Your task to perform on an android device: Go to eBay Image 0: 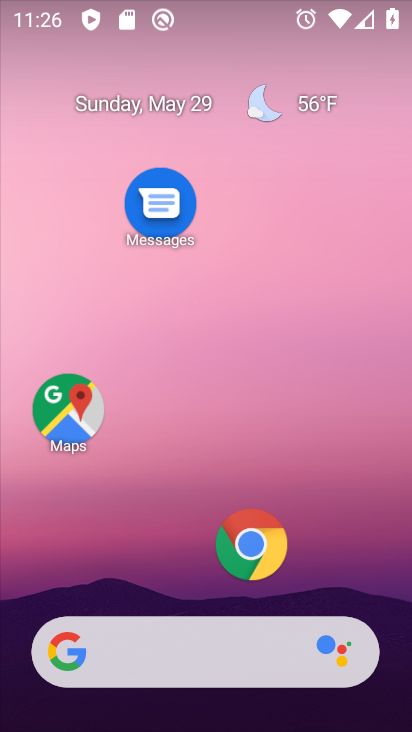
Step 0: press home button
Your task to perform on an android device: Go to eBay Image 1: 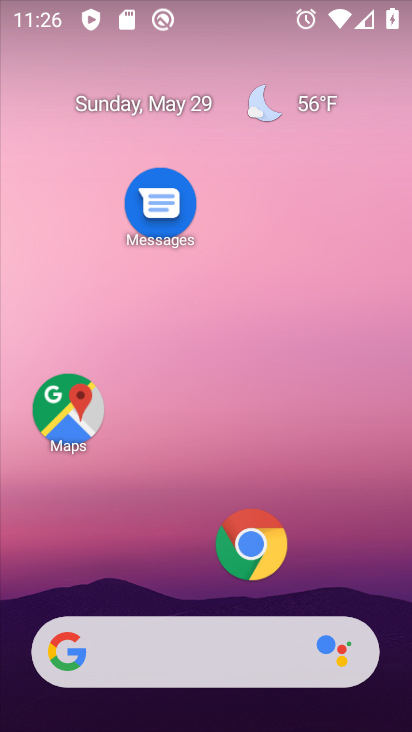
Step 1: click (251, 538)
Your task to perform on an android device: Go to eBay Image 2: 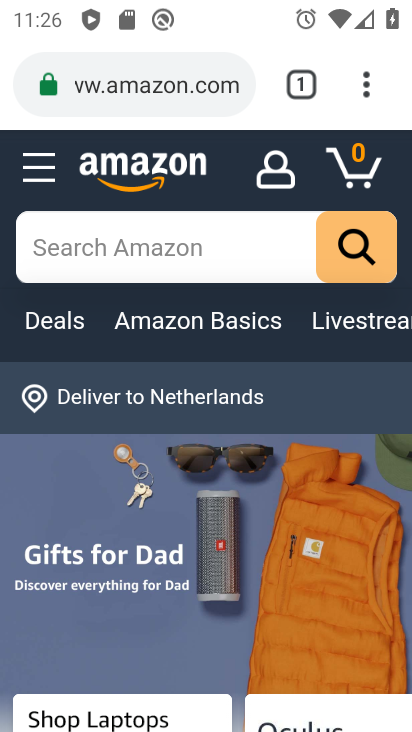
Step 2: click (297, 89)
Your task to perform on an android device: Go to eBay Image 3: 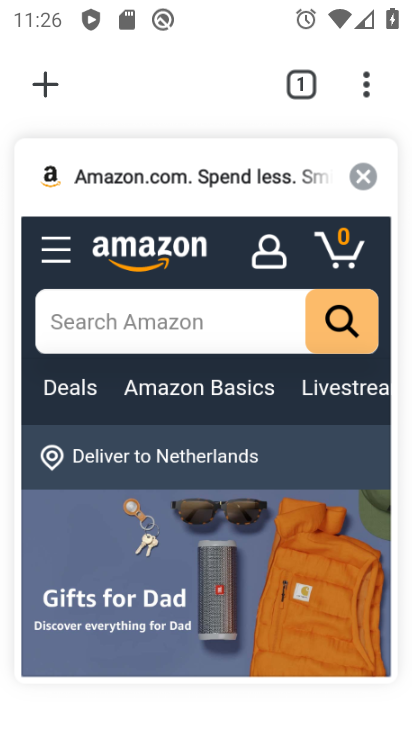
Step 3: click (365, 166)
Your task to perform on an android device: Go to eBay Image 4: 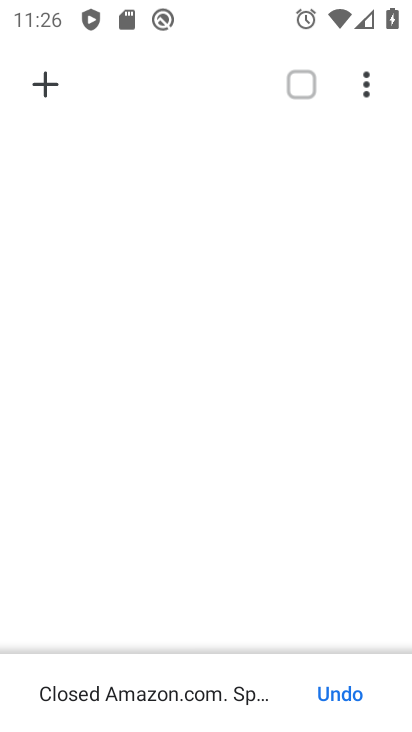
Step 4: click (43, 77)
Your task to perform on an android device: Go to eBay Image 5: 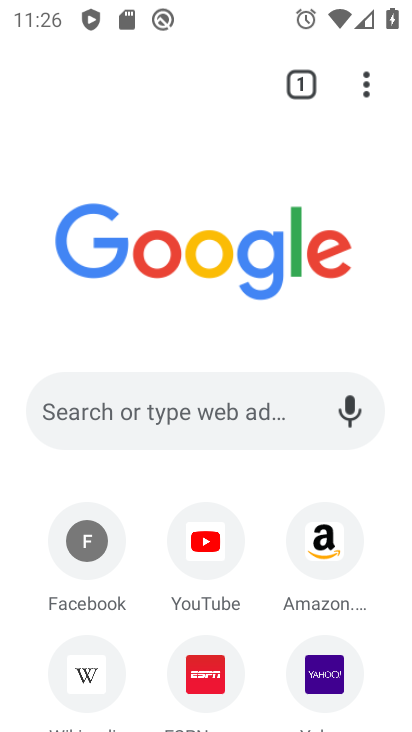
Step 5: click (164, 397)
Your task to perform on an android device: Go to eBay Image 6: 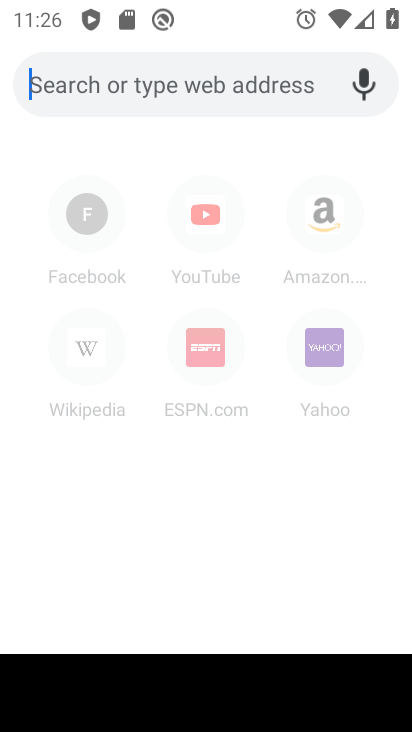
Step 6: type "ebay"
Your task to perform on an android device: Go to eBay Image 7: 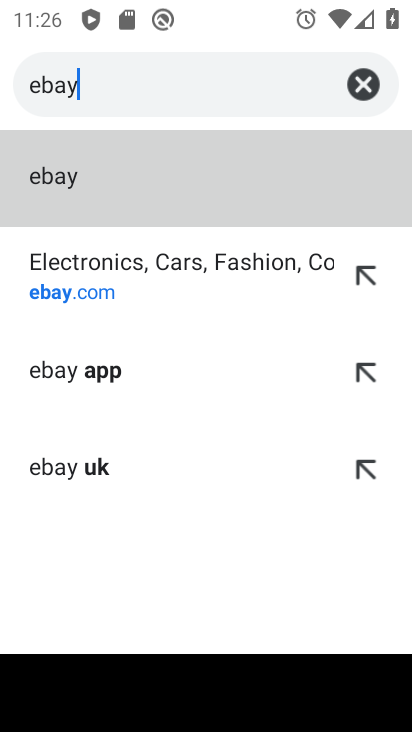
Step 7: click (141, 279)
Your task to perform on an android device: Go to eBay Image 8: 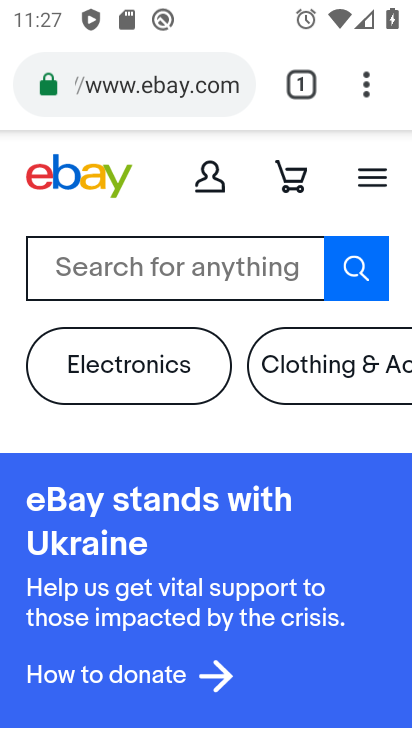
Step 8: drag from (259, 645) to (255, 248)
Your task to perform on an android device: Go to eBay Image 9: 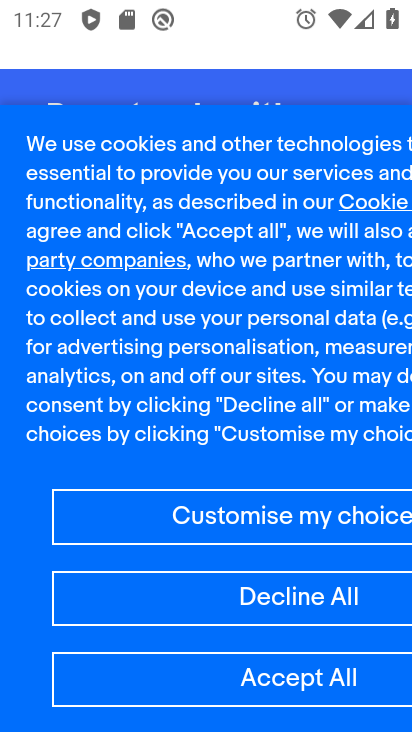
Step 9: click (304, 685)
Your task to perform on an android device: Go to eBay Image 10: 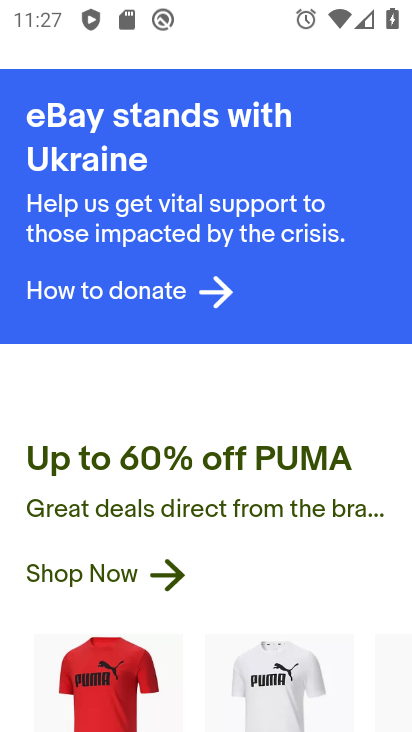
Step 10: task complete